Your task to perform on an android device: Go to Yahoo.com Image 0: 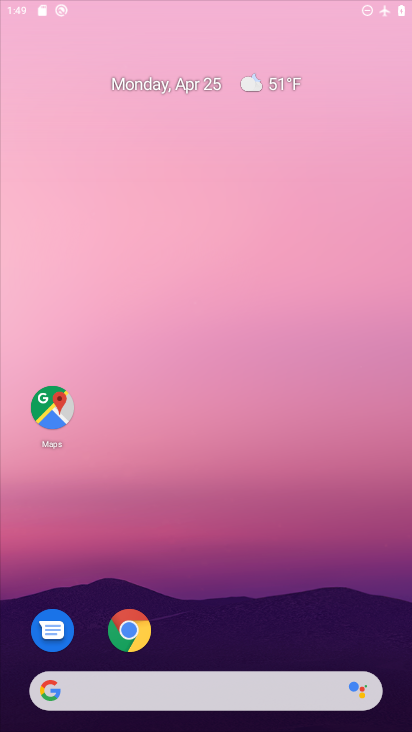
Step 0: drag from (335, 532) to (359, 115)
Your task to perform on an android device: Go to Yahoo.com Image 1: 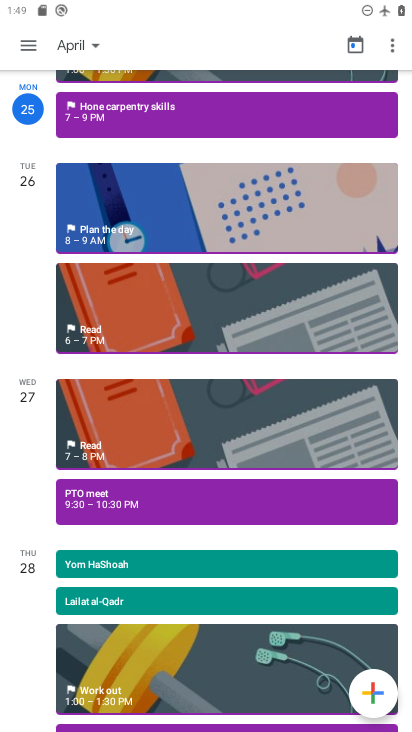
Step 1: press home button
Your task to perform on an android device: Go to Yahoo.com Image 2: 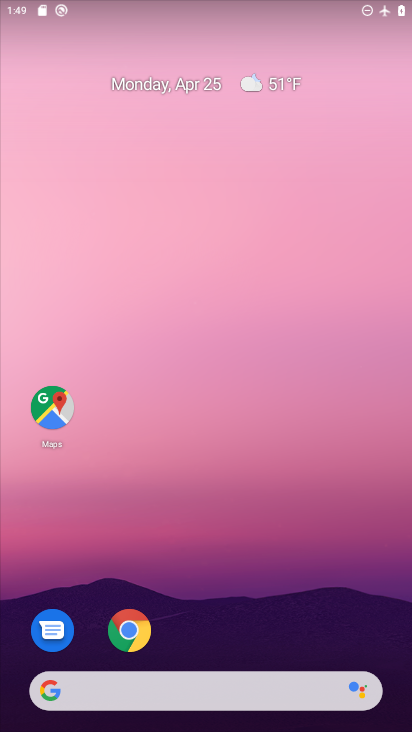
Step 2: drag from (227, 348) to (173, 65)
Your task to perform on an android device: Go to Yahoo.com Image 3: 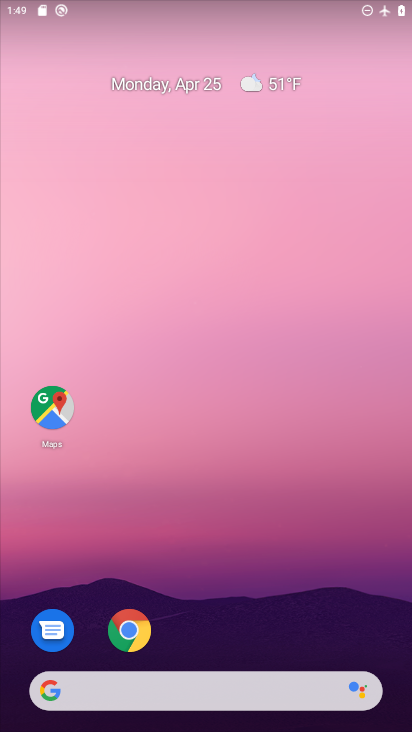
Step 3: drag from (350, 572) to (330, 141)
Your task to perform on an android device: Go to Yahoo.com Image 4: 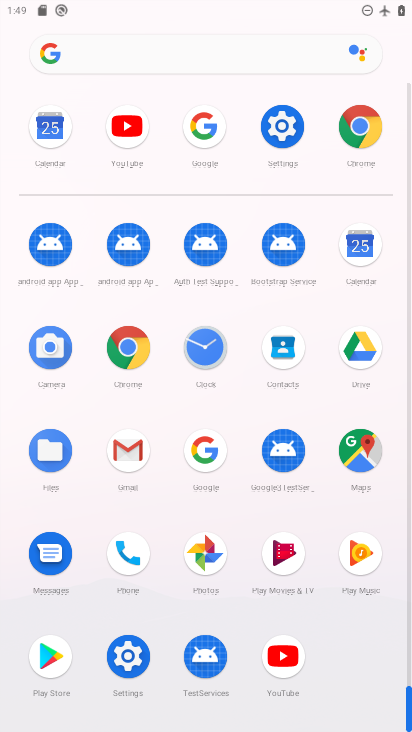
Step 4: click (136, 362)
Your task to perform on an android device: Go to Yahoo.com Image 5: 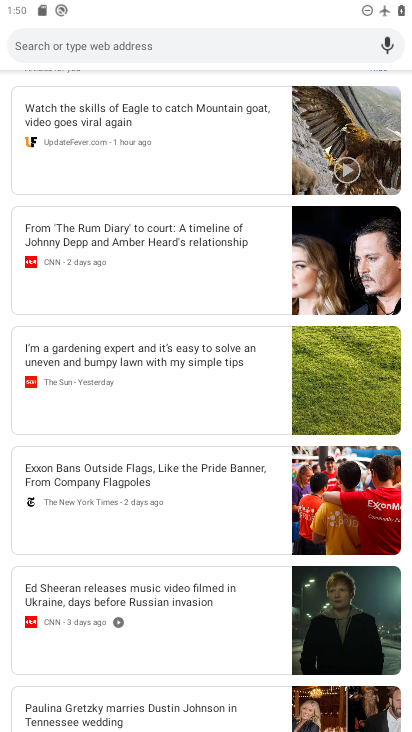
Step 5: drag from (208, 175) to (164, 610)
Your task to perform on an android device: Go to Yahoo.com Image 6: 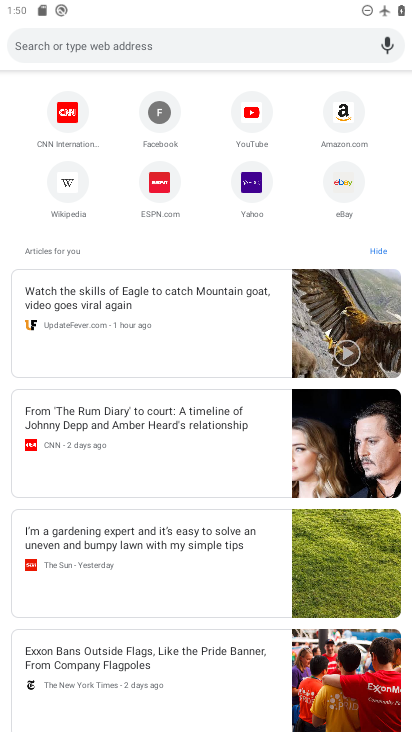
Step 6: drag from (176, 178) to (210, 607)
Your task to perform on an android device: Go to Yahoo.com Image 7: 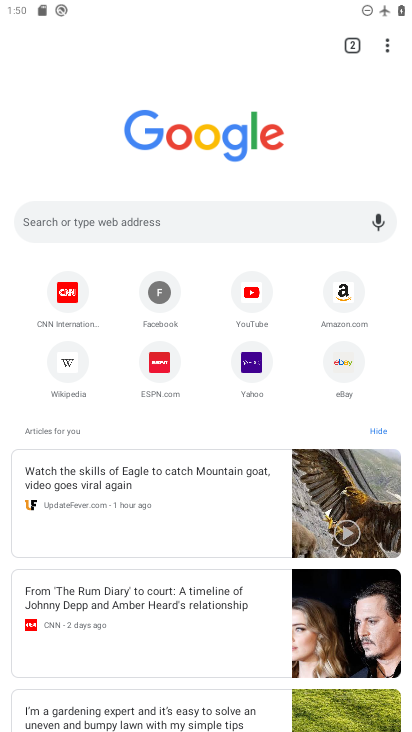
Step 7: click (157, 209)
Your task to perform on an android device: Go to Yahoo.com Image 8: 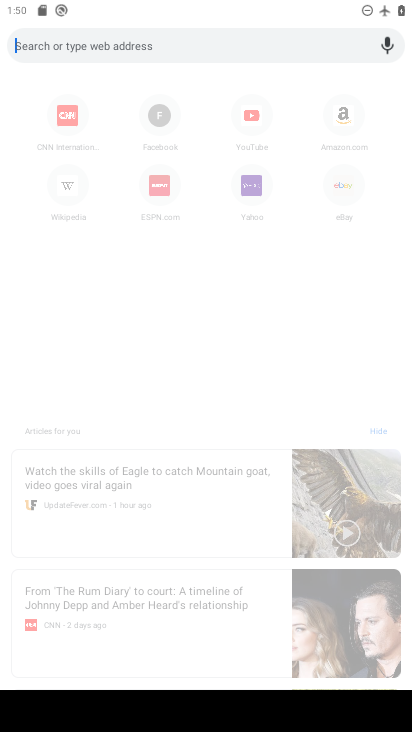
Step 8: type "yahoo.com"
Your task to perform on an android device: Go to Yahoo.com Image 9: 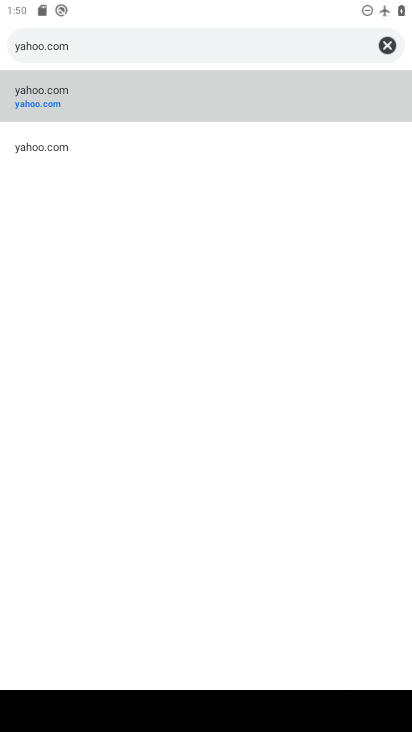
Step 9: click (32, 103)
Your task to perform on an android device: Go to Yahoo.com Image 10: 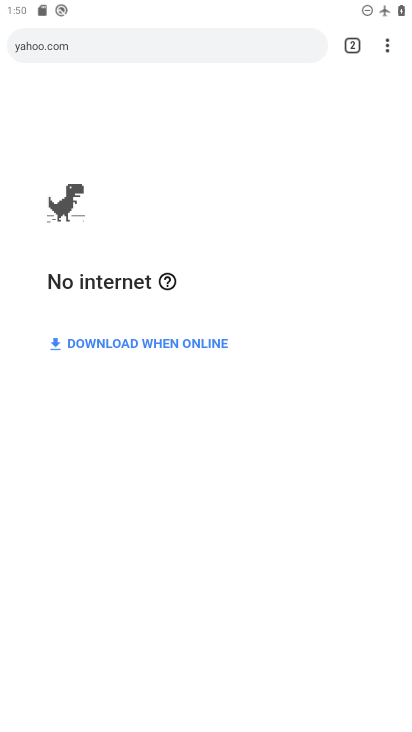
Step 10: task complete